Your task to perform on an android device: Go to location settings Image 0: 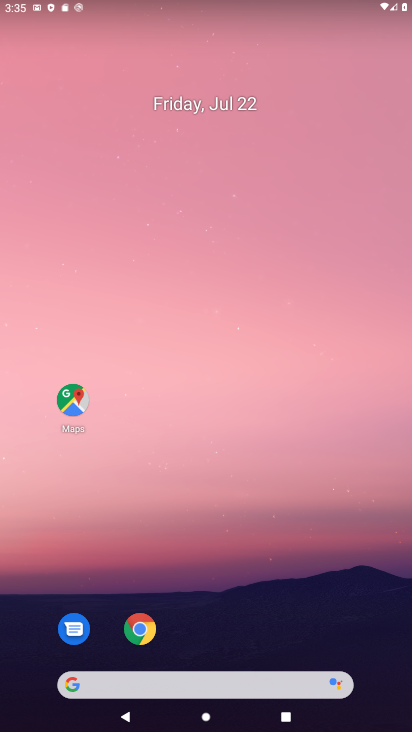
Step 0: drag from (358, 597) to (256, 107)
Your task to perform on an android device: Go to location settings Image 1: 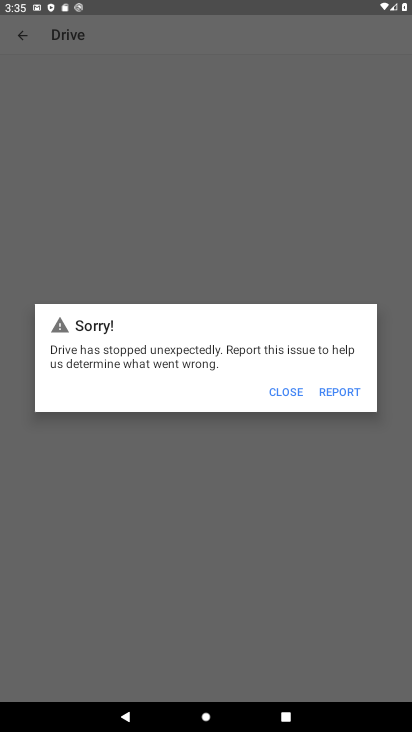
Step 1: press home button
Your task to perform on an android device: Go to location settings Image 2: 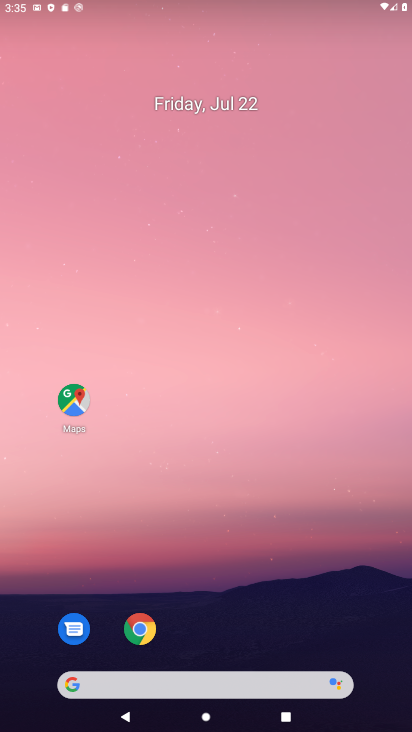
Step 2: drag from (278, 573) to (205, 135)
Your task to perform on an android device: Go to location settings Image 3: 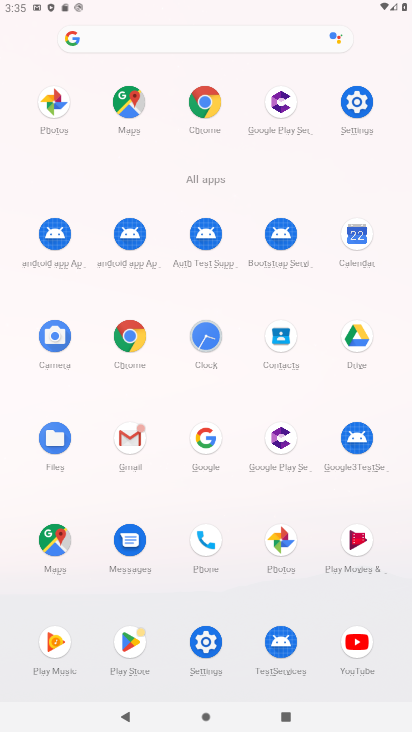
Step 3: click (350, 100)
Your task to perform on an android device: Go to location settings Image 4: 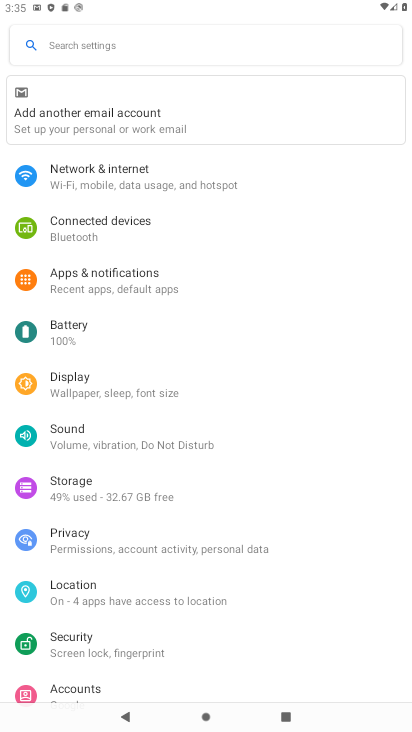
Step 4: click (142, 589)
Your task to perform on an android device: Go to location settings Image 5: 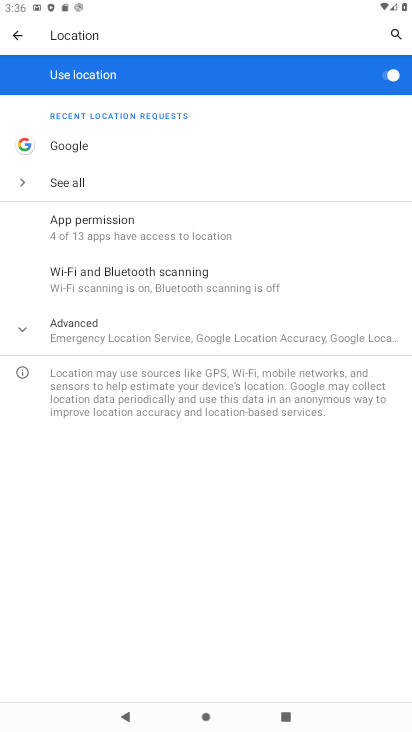
Step 5: task complete